Your task to perform on an android device: Go to eBay Image 0: 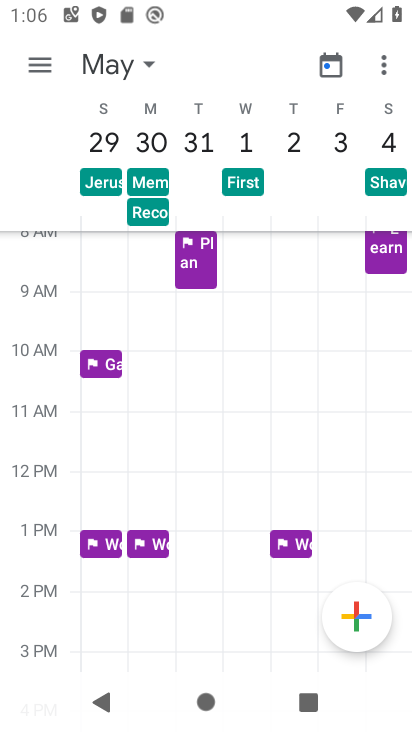
Step 0: press home button
Your task to perform on an android device: Go to eBay Image 1: 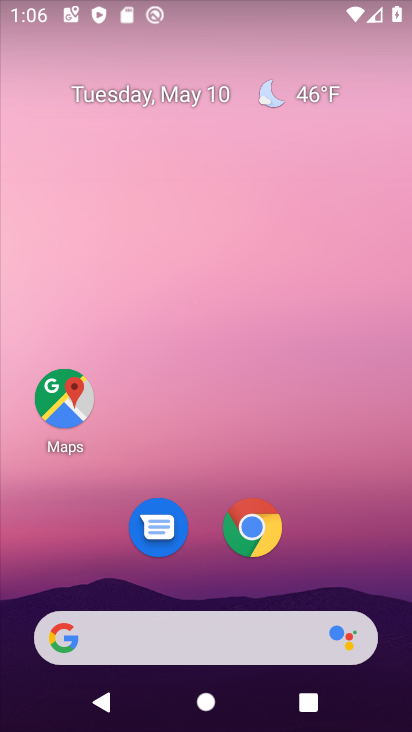
Step 1: click (251, 534)
Your task to perform on an android device: Go to eBay Image 2: 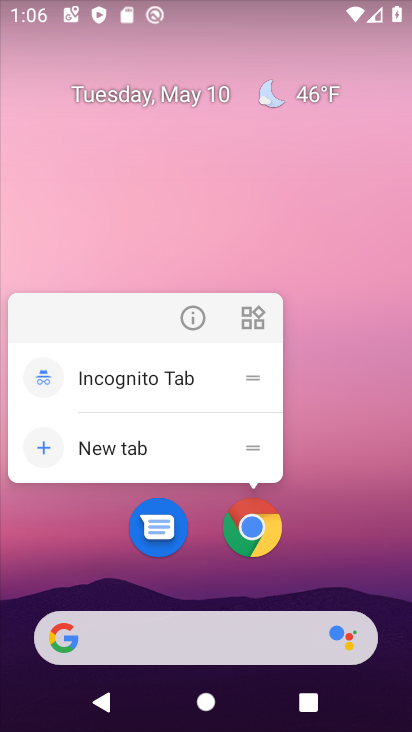
Step 2: click (251, 534)
Your task to perform on an android device: Go to eBay Image 3: 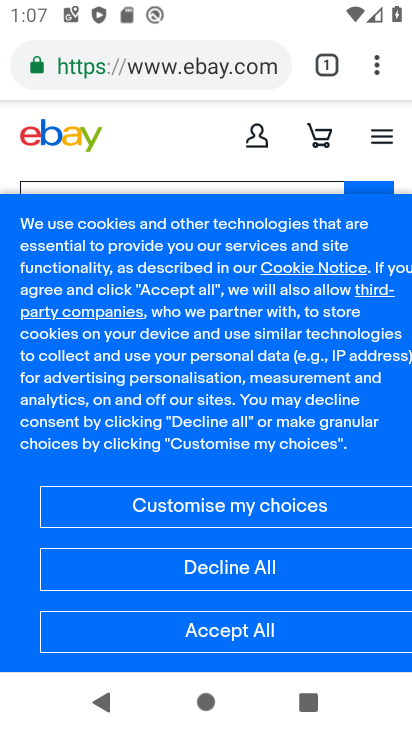
Step 3: task complete